Your task to perform on an android device: Turn off the flashlight Image 0: 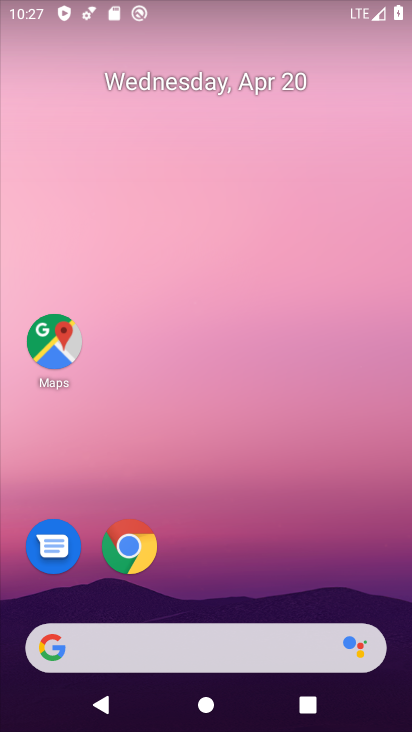
Step 0: drag from (210, 576) to (102, 122)
Your task to perform on an android device: Turn off the flashlight Image 1: 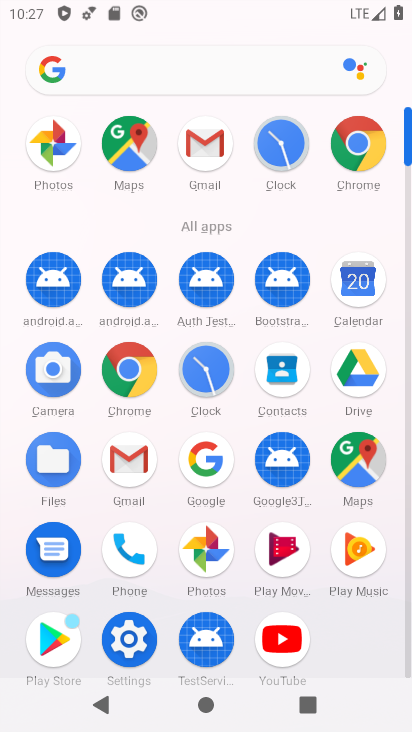
Step 1: click (143, 651)
Your task to perform on an android device: Turn off the flashlight Image 2: 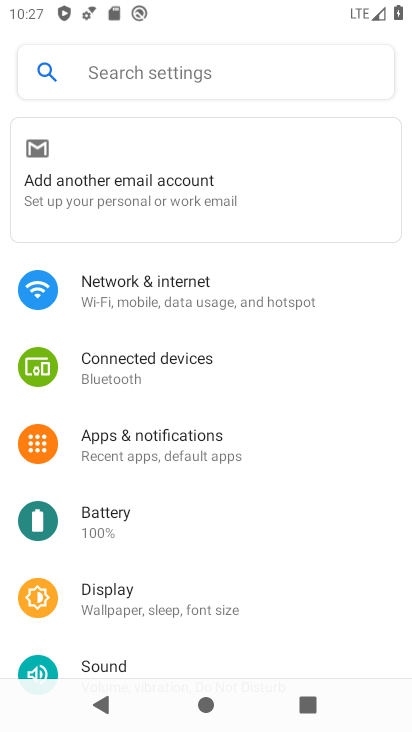
Step 2: click (160, 67)
Your task to perform on an android device: Turn off the flashlight Image 3: 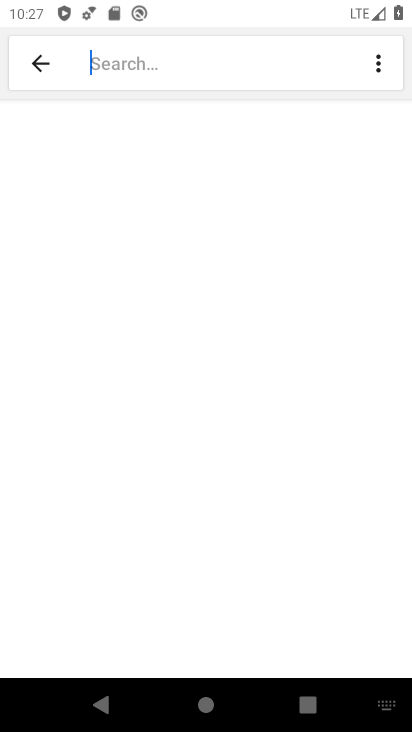
Step 3: click (161, 76)
Your task to perform on an android device: Turn off the flashlight Image 4: 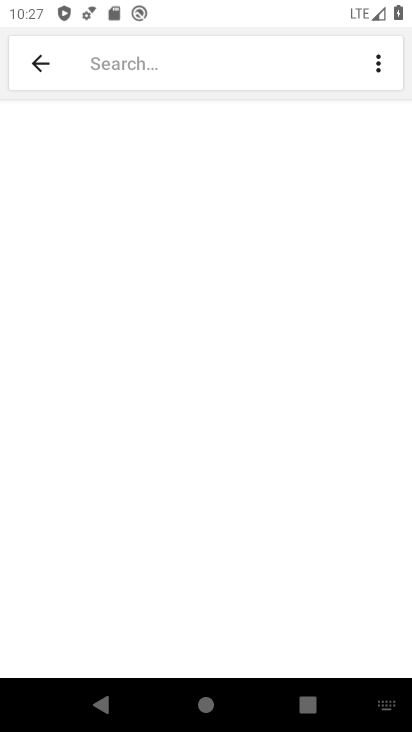
Step 4: type "flashlight"
Your task to perform on an android device: Turn off the flashlight Image 5: 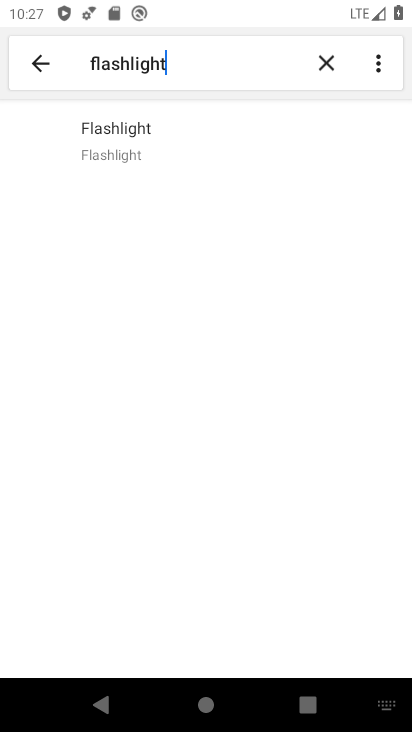
Step 5: click (153, 145)
Your task to perform on an android device: Turn off the flashlight Image 6: 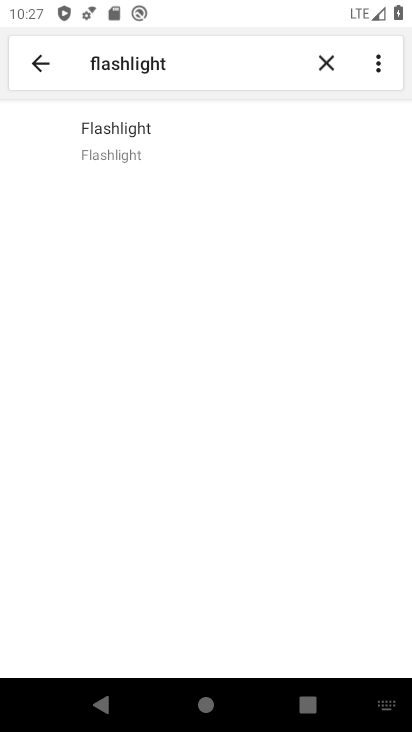
Step 6: task complete